Your task to perform on an android device: Find coffee shops on Maps Image 0: 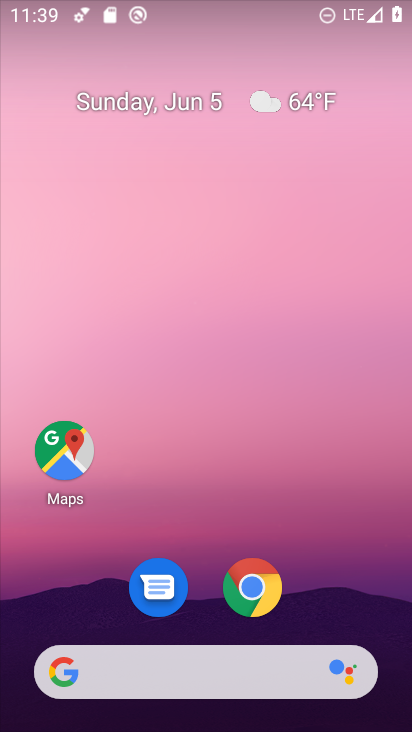
Step 0: click (52, 437)
Your task to perform on an android device: Find coffee shops on Maps Image 1: 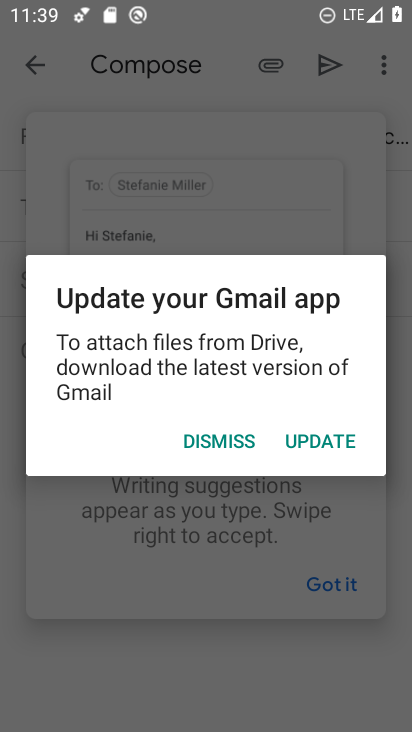
Step 1: press home button
Your task to perform on an android device: Find coffee shops on Maps Image 2: 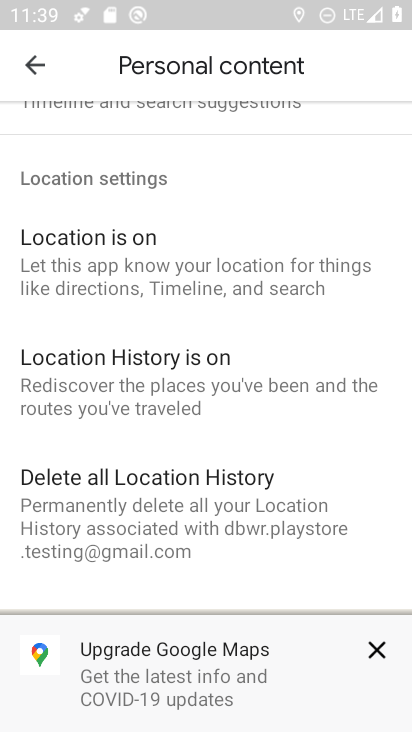
Step 2: press home button
Your task to perform on an android device: Find coffee shops on Maps Image 3: 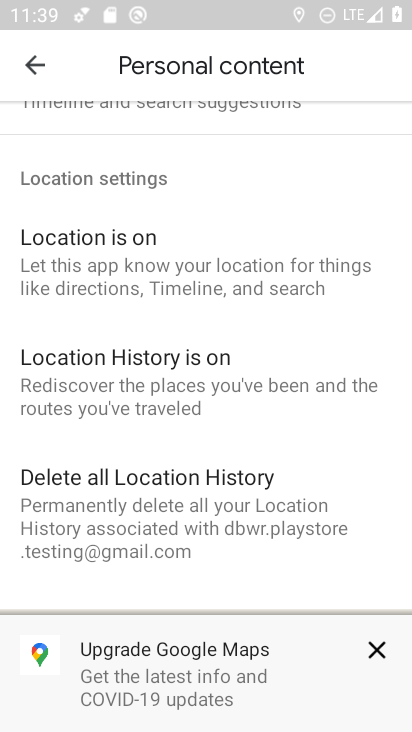
Step 3: press home button
Your task to perform on an android device: Find coffee shops on Maps Image 4: 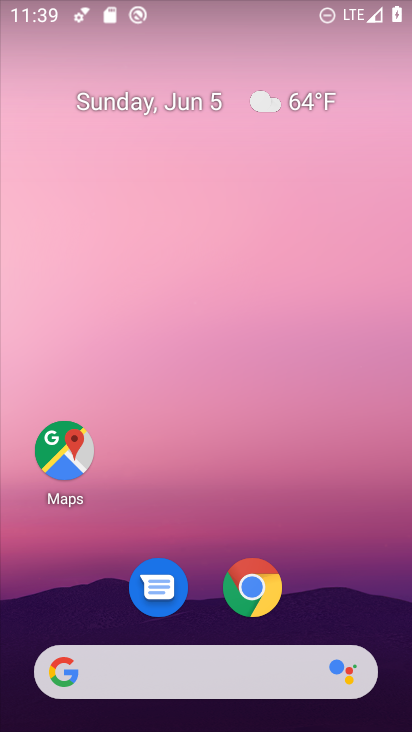
Step 4: click (53, 427)
Your task to perform on an android device: Find coffee shops on Maps Image 5: 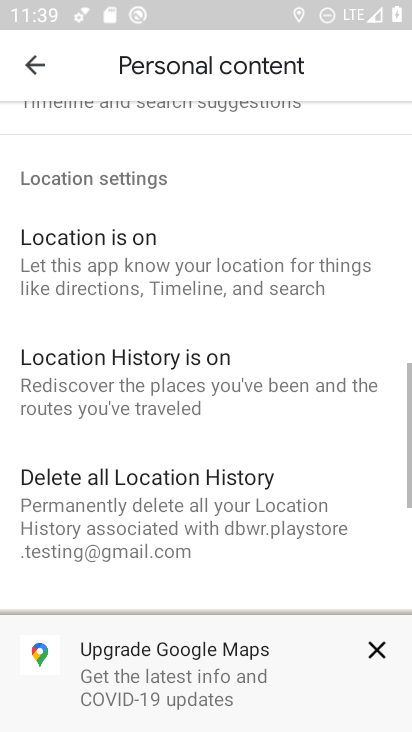
Step 5: click (33, 56)
Your task to perform on an android device: Find coffee shops on Maps Image 6: 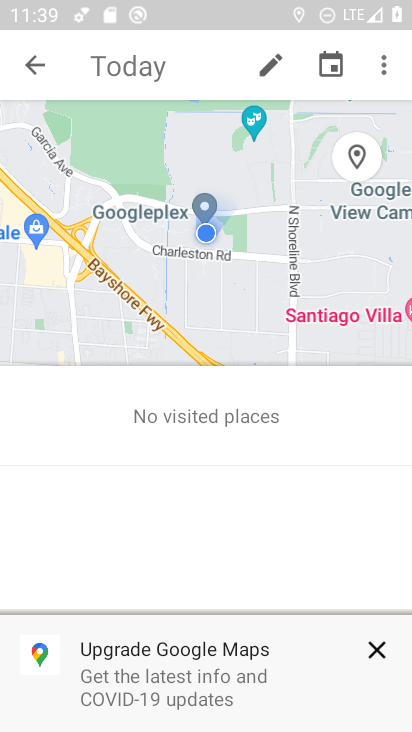
Step 6: click (28, 62)
Your task to perform on an android device: Find coffee shops on Maps Image 7: 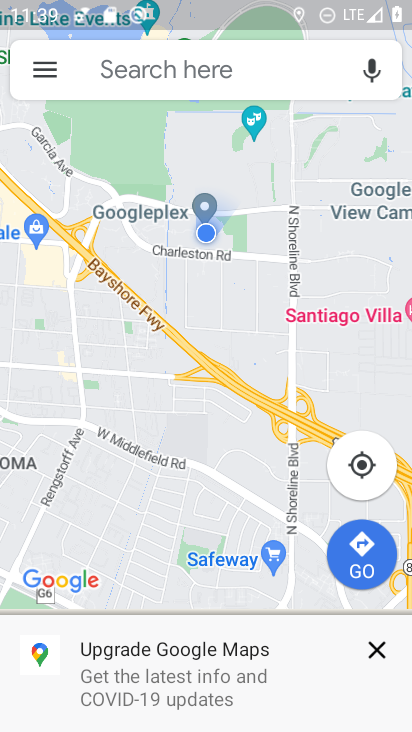
Step 7: click (156, 61)
Your task to perform on an android device: Find coffee shops on Maps Image 8: 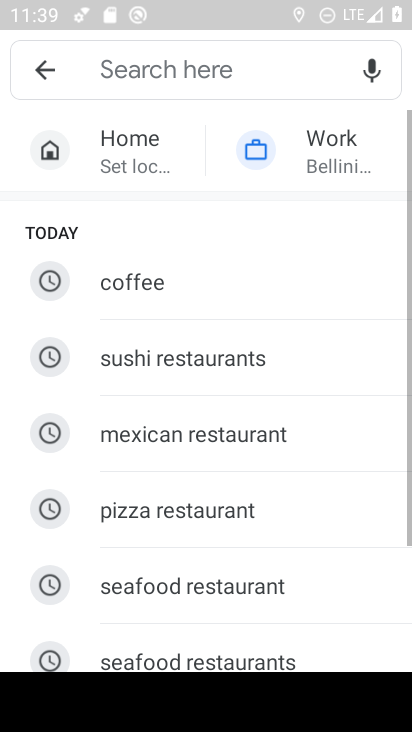
Step 8: click (138, 281)
Your task to perform on an android device: Find coffee shops on Maps Image 9: 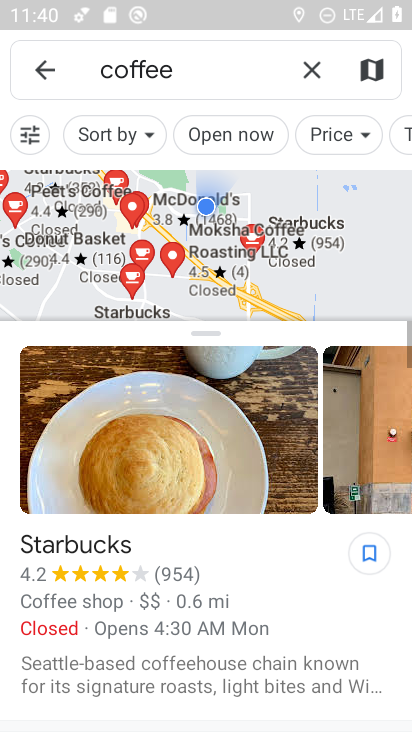
Step 9: task complete